Your task to perform on an android device: Show me popular videos on Youtube Image 0: 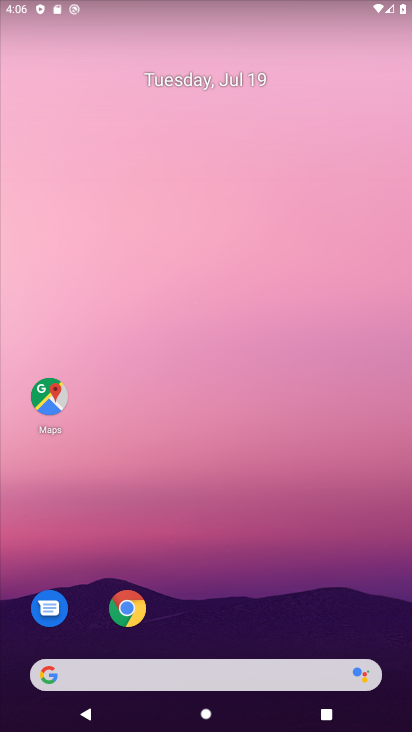
Step 0: drag from (179, 622) to (301, 44)
Your task to perform on an android device: Show me popular videos on Youtube Image 1: 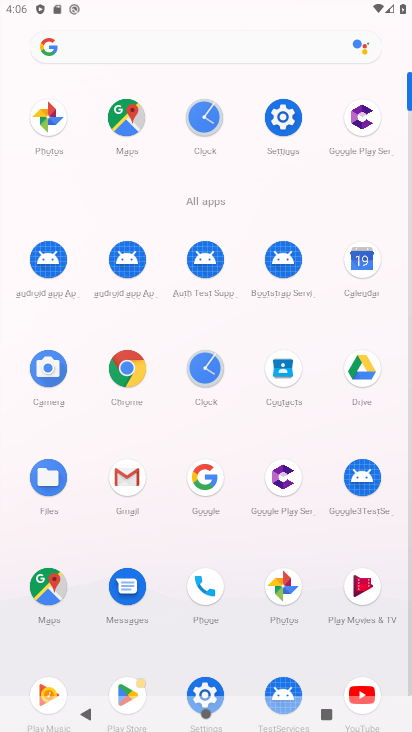
Step 1: drag from (207, 617) to (132, 5)
Your task to perform on an android device: Show me popular videos on Youtube Image 2: 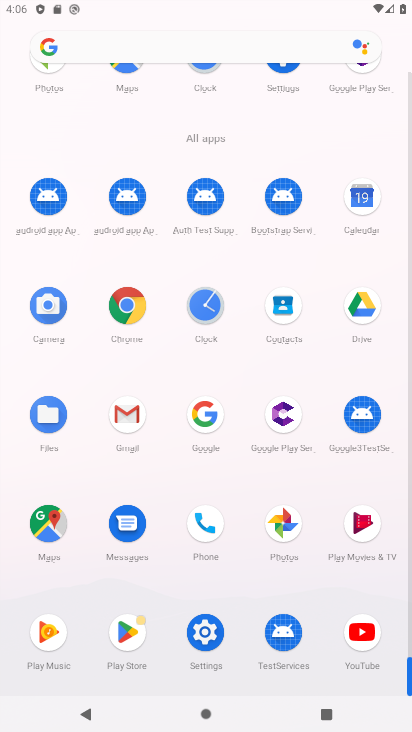
Step 2: click (367, 635)
Your task to perform on an android device: Show me popular videos on Youtube Image 3: 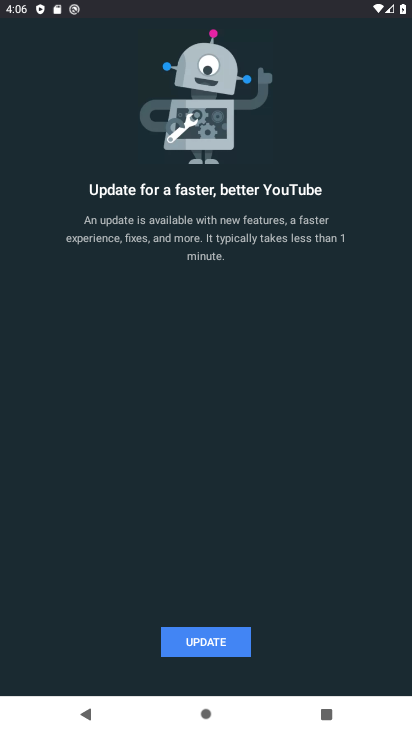
Step 3: click (368, 628)
Your task to perform on an android device: Show me popular videos on Youtube Image 4: 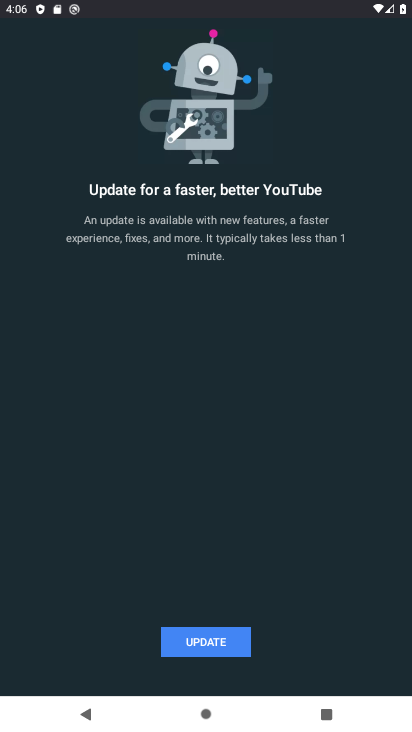
Step 4: click (216, 638)
Your task to perform on an android device: Show me popular videos on Youtube Image 5: 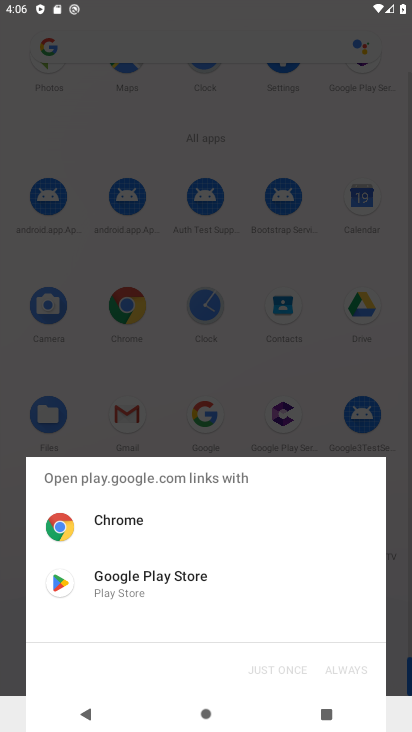
Step 5: click (216, 638)
Your task to perform on an android device: Show me popular videos on Youtube Image 6: 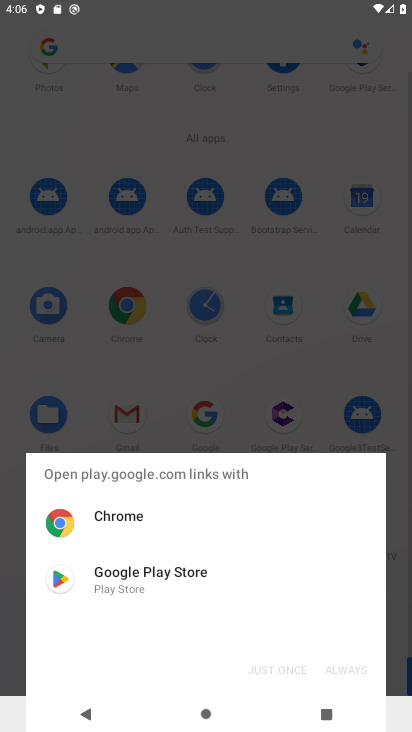
Step 6: click (143, 572)
Your task to perform on an android device: Show me popular videos on Youtube Image 7: 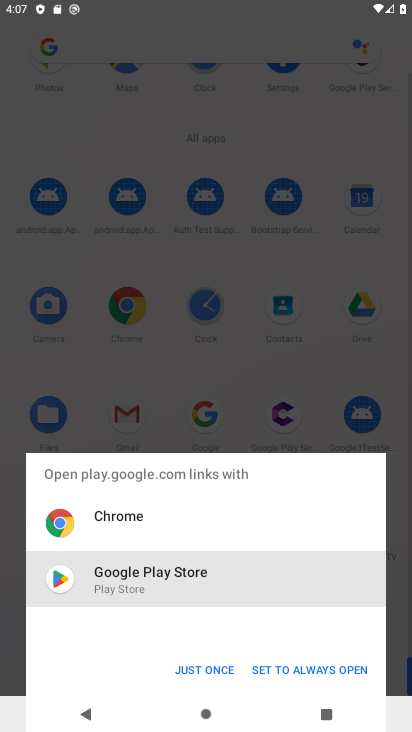
Step 7: click (215, 674)
Your task to perform on an android device: Show me popular videos on Youtube Image 8: 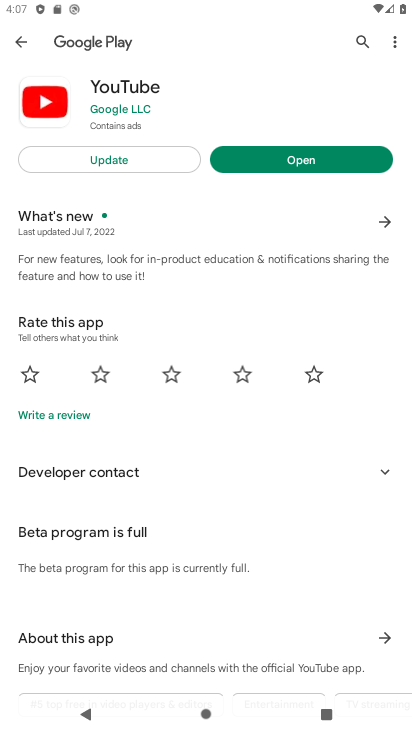
Step 8: click (289, 172)
Your task to perform on an android device: Show me popular videos on Youtube Image 9: 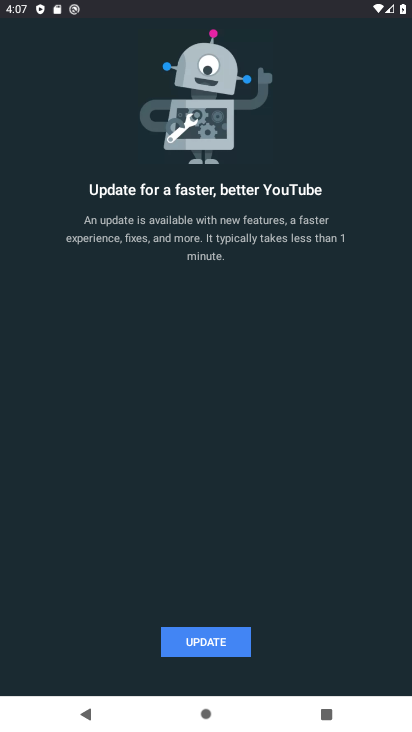
Step 9: press back button
Your task to perform on an android device: Show me popular videos on Youtube Image 10: 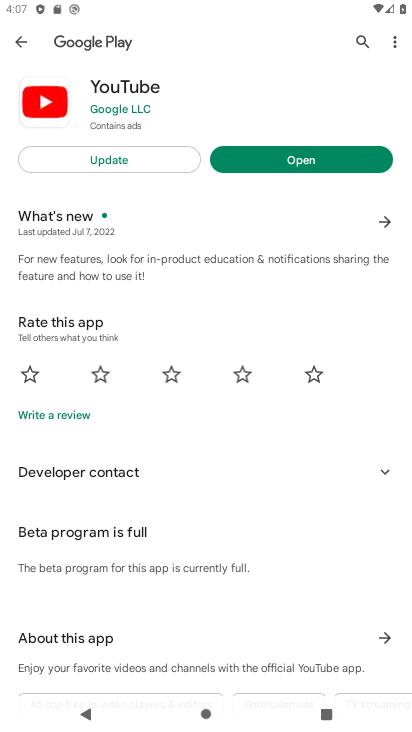
Step 10: click (113, 170)
Your task to perform on an android device: Show me popular videos on Youtube Image 11: 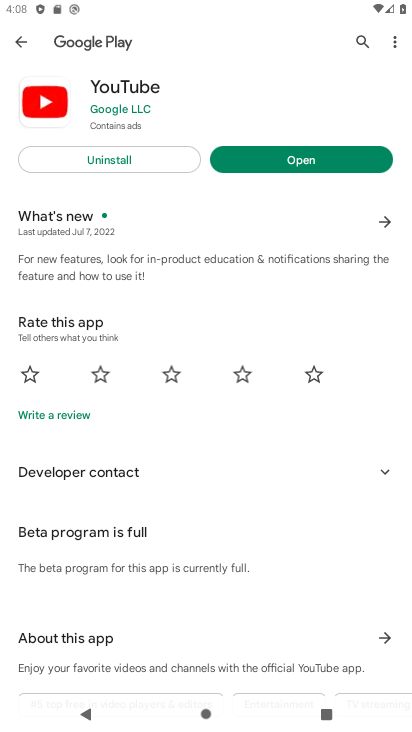
Step 11: click (296, 155)
Your task to perform on an android device: Show me popular videos on Youtube Image 12: 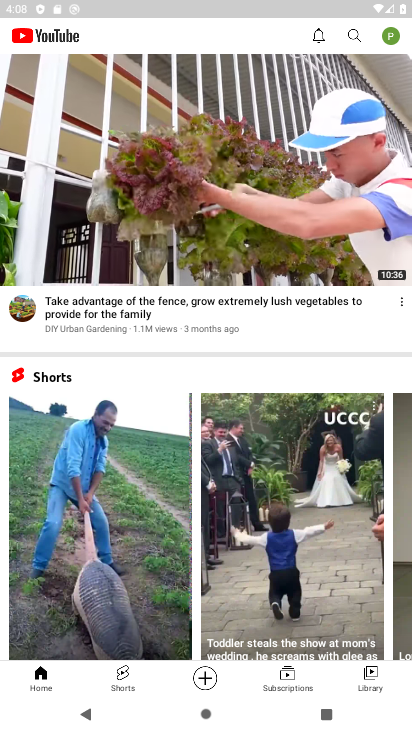
Step 12: drag from (91, 142) to (215, 597)
Your task to perform on an android device: Show me popular videos on Youtube Image 13: 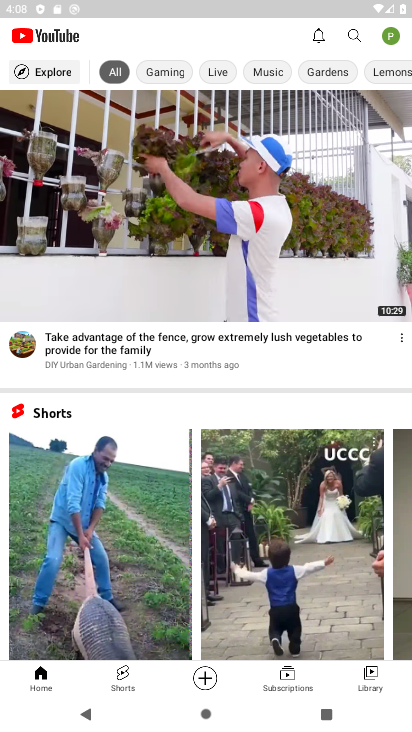
Step 13: click (44, 61)
Your task to perform on an android device: Show me popular videos on Youtube Image 14: 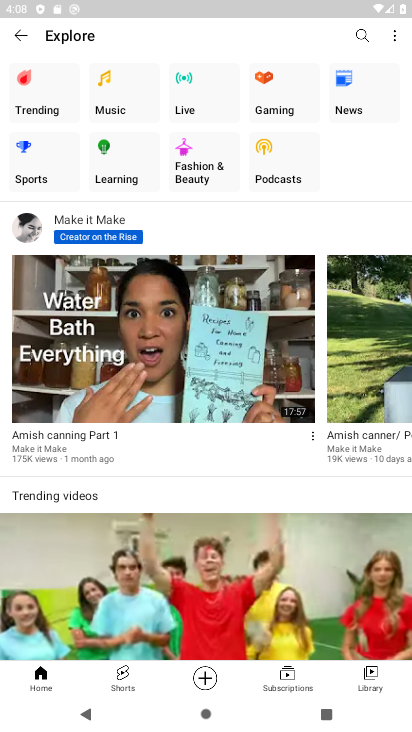
Step 14: click (36, 85)
Your task to perform on an android device: Show me popular videos on Youtube Image 15: 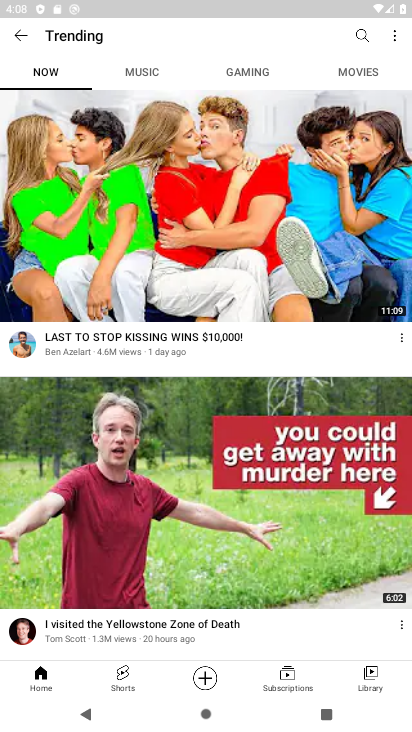
Step 15: task complete